Your task to perform on an android device: change the clock display to show seconds Image 0: 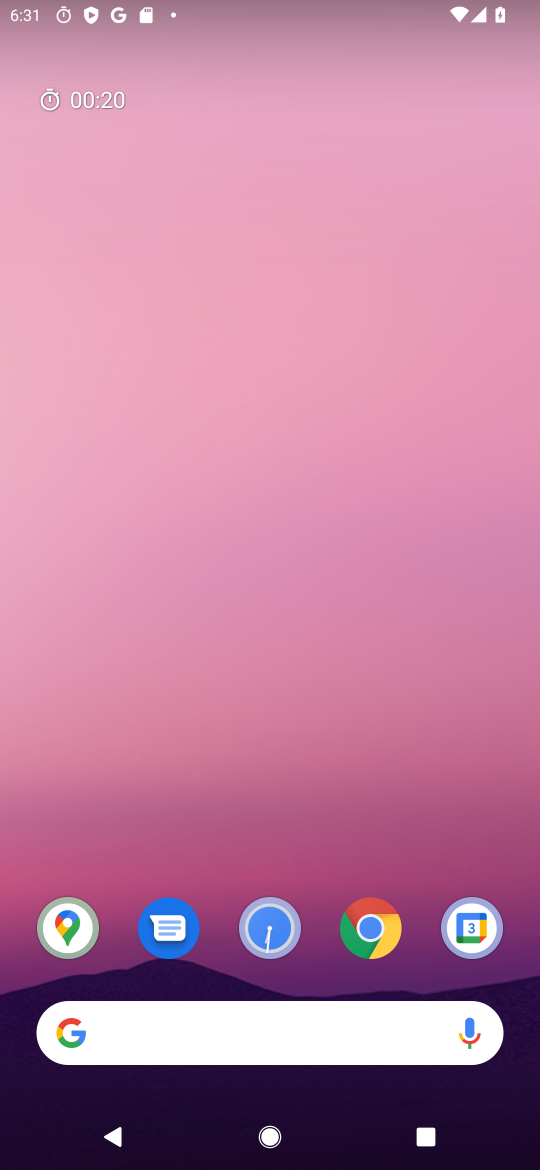
Step 0: press home button
Your task to perform on an android device: change the clock display to show seconds Image 1: 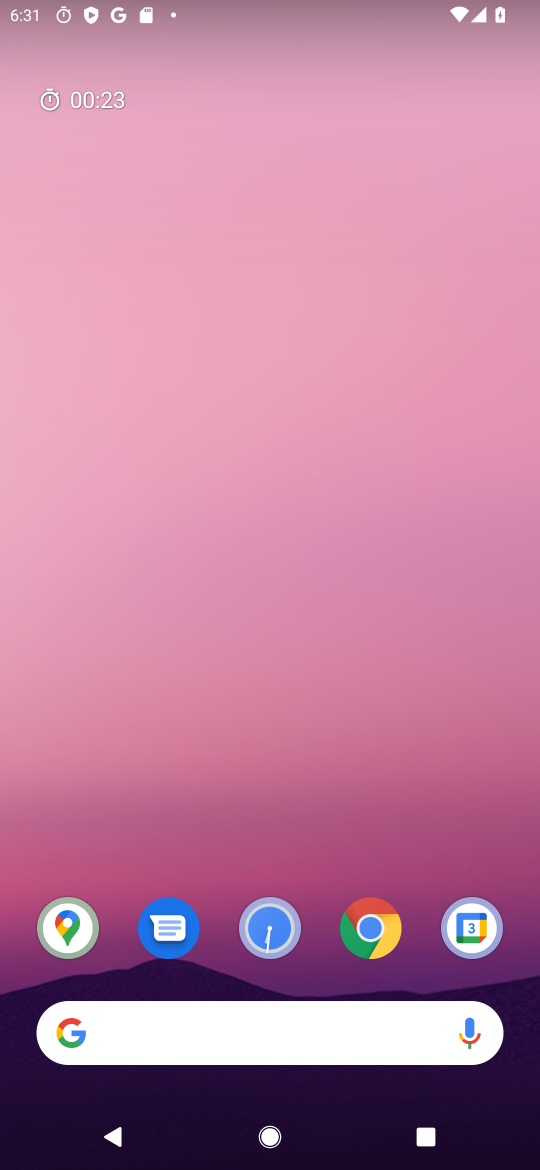
Step 1: drag from (217, 866) to (252, 167)
Your task to perform on an android device: change the clock display to show seconds Image 2: 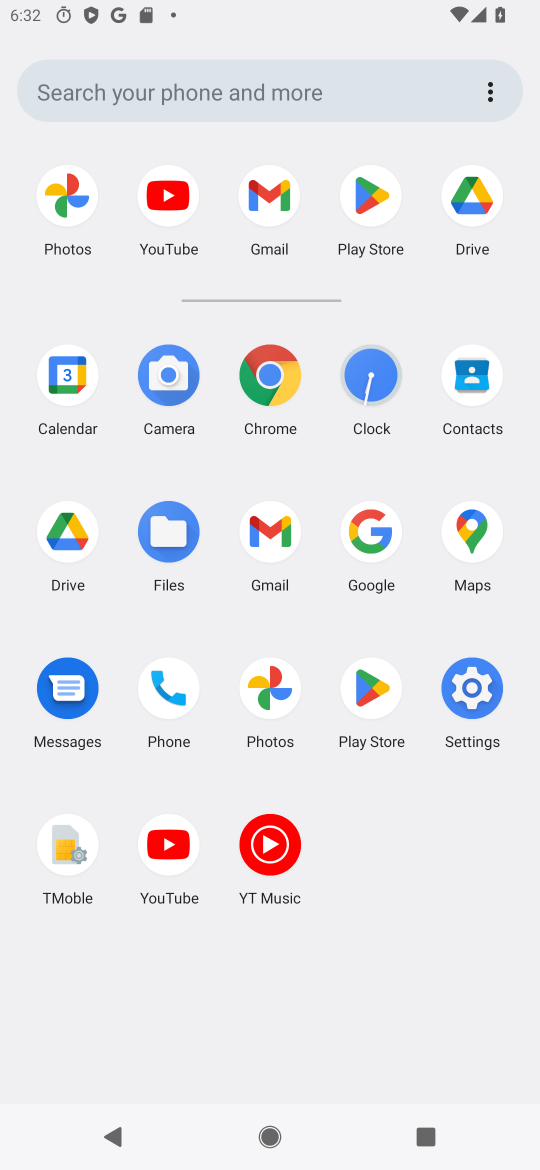
Step 2: click (376, 386)
Your task to perform on an android device: change the clock display to show seconds Image 3: 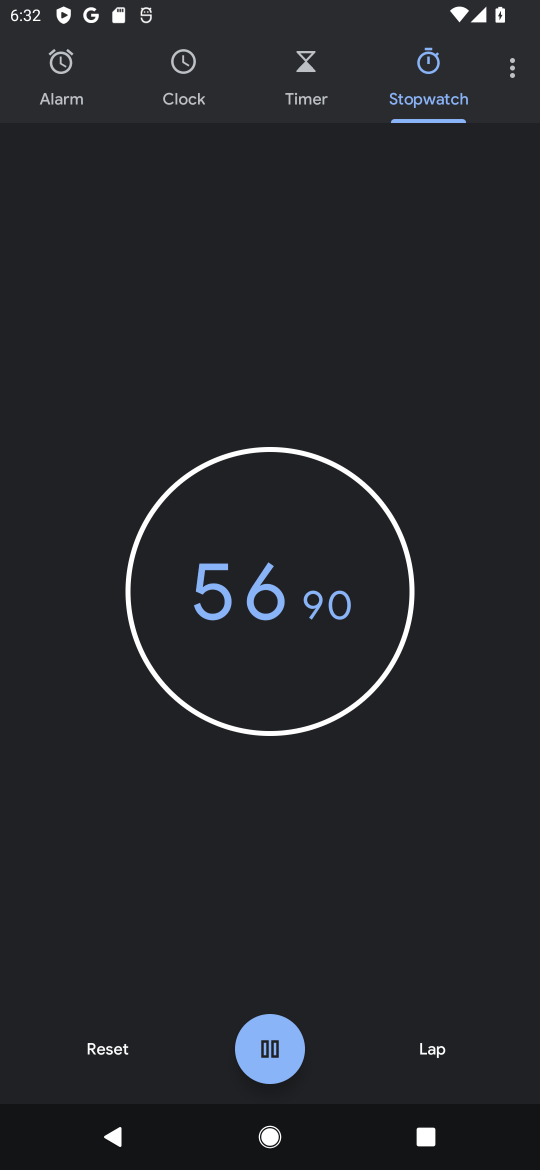
Step 3: click (511, 71)
Your task to perform on an android device: change the clock display to show seconds Image 4: 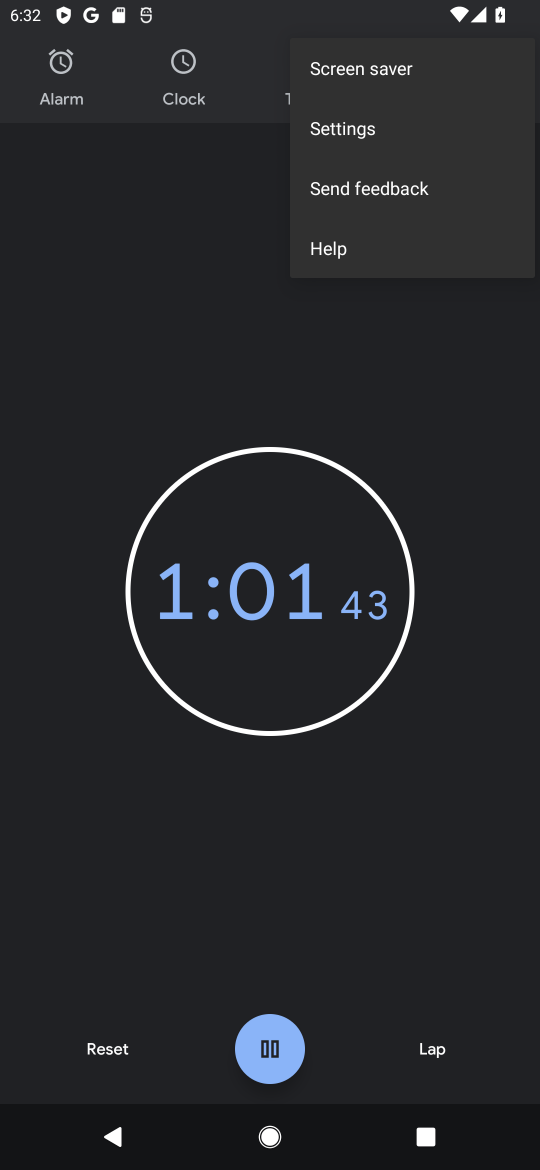
Step 4: click (380, 139)
Your task to perform on an android device: change the clock display to show seconds Image 5: 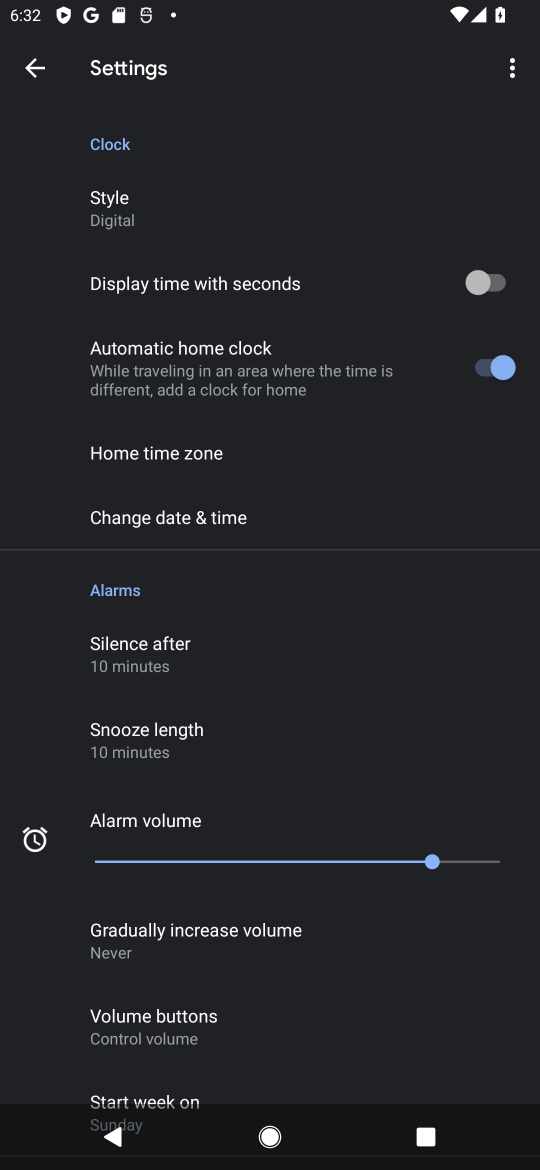
Step 5: click (478, 284)
Your task to perform on an android device: change the clock display to show seconds Image 6: 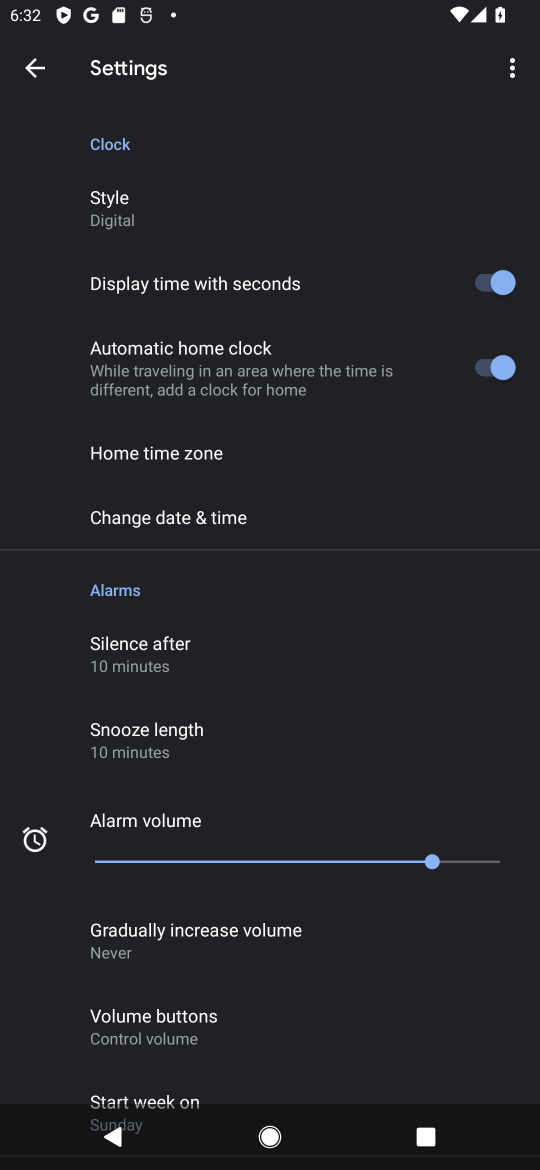
Step 6: task complete